Your task to perform on an android device: Clear all items from cart on bestbuy.com. Image 0: 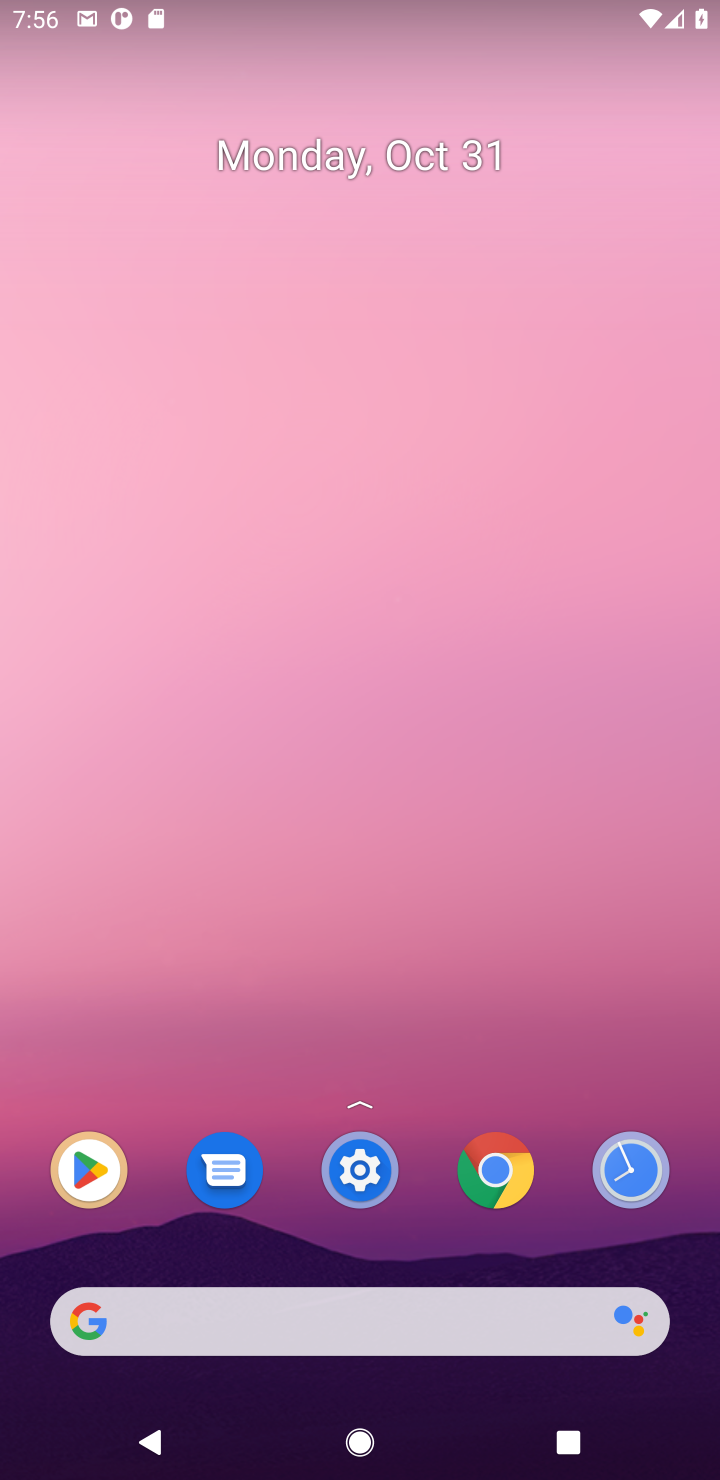
Step 0: click (502, 1185)
Your task to perform on an android device: Clear all items from cart on bestbuy.com. Image 1: 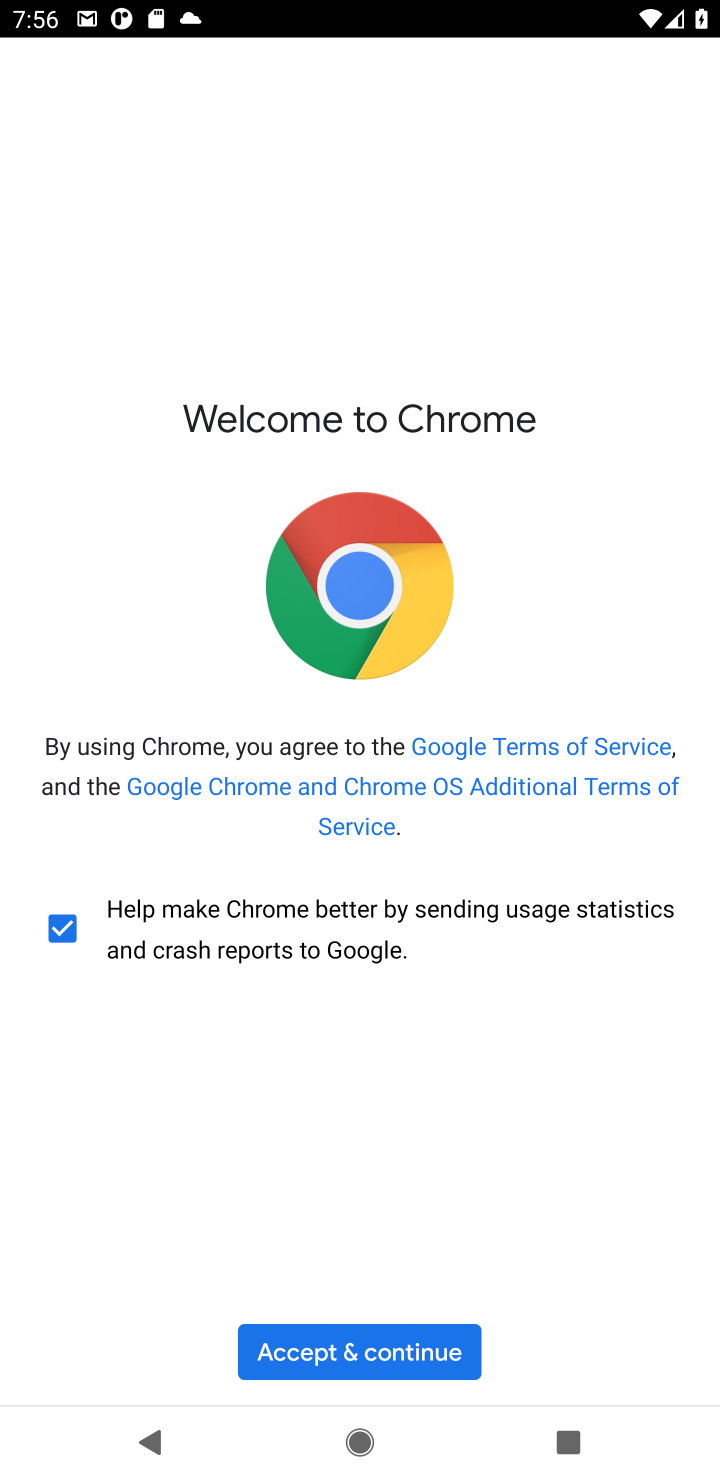
Step 1: click (345, 1355)
Your task to perform on an android device: Clear all items from cart on bestbuy.com. Image 2: 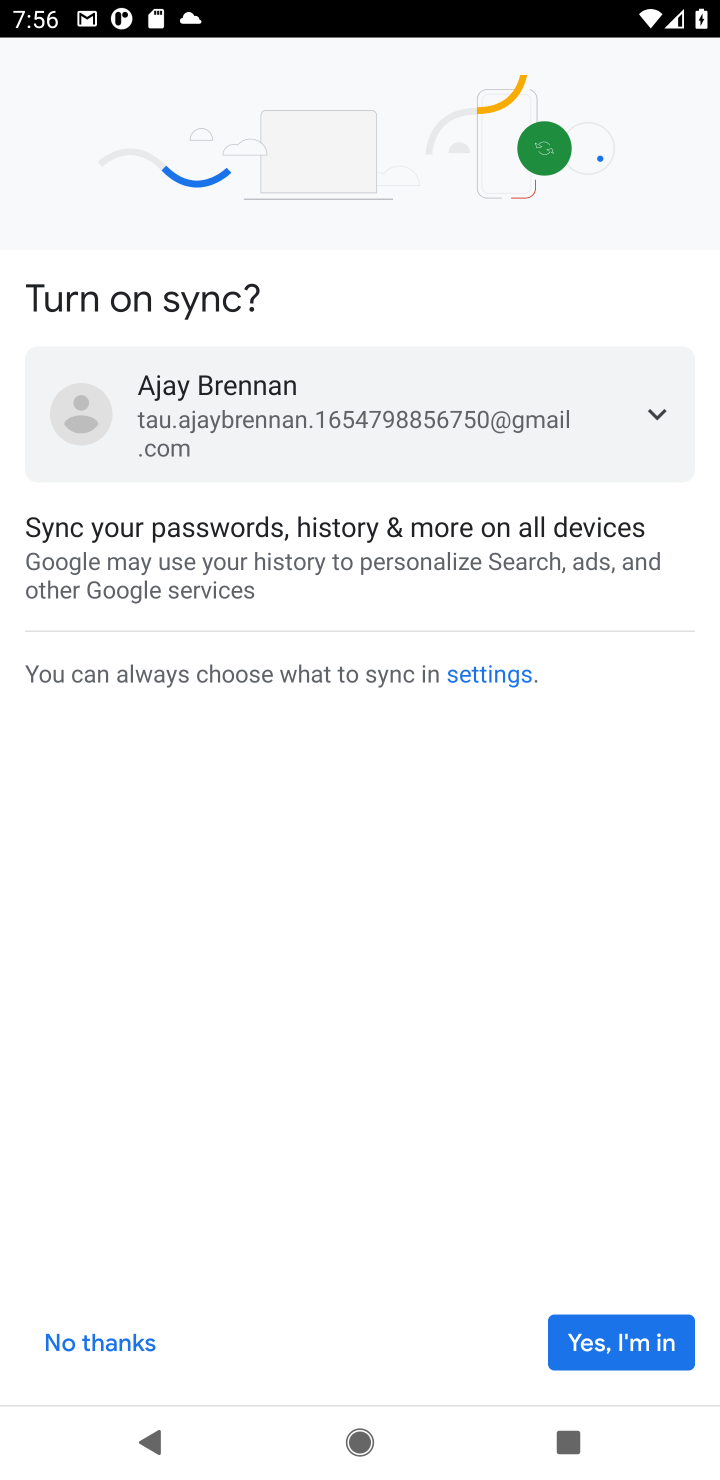
Step 2: click (667, 1347)
Your task to perform on an android device: Clear all items from cart on bestbuy.com. Image 3: 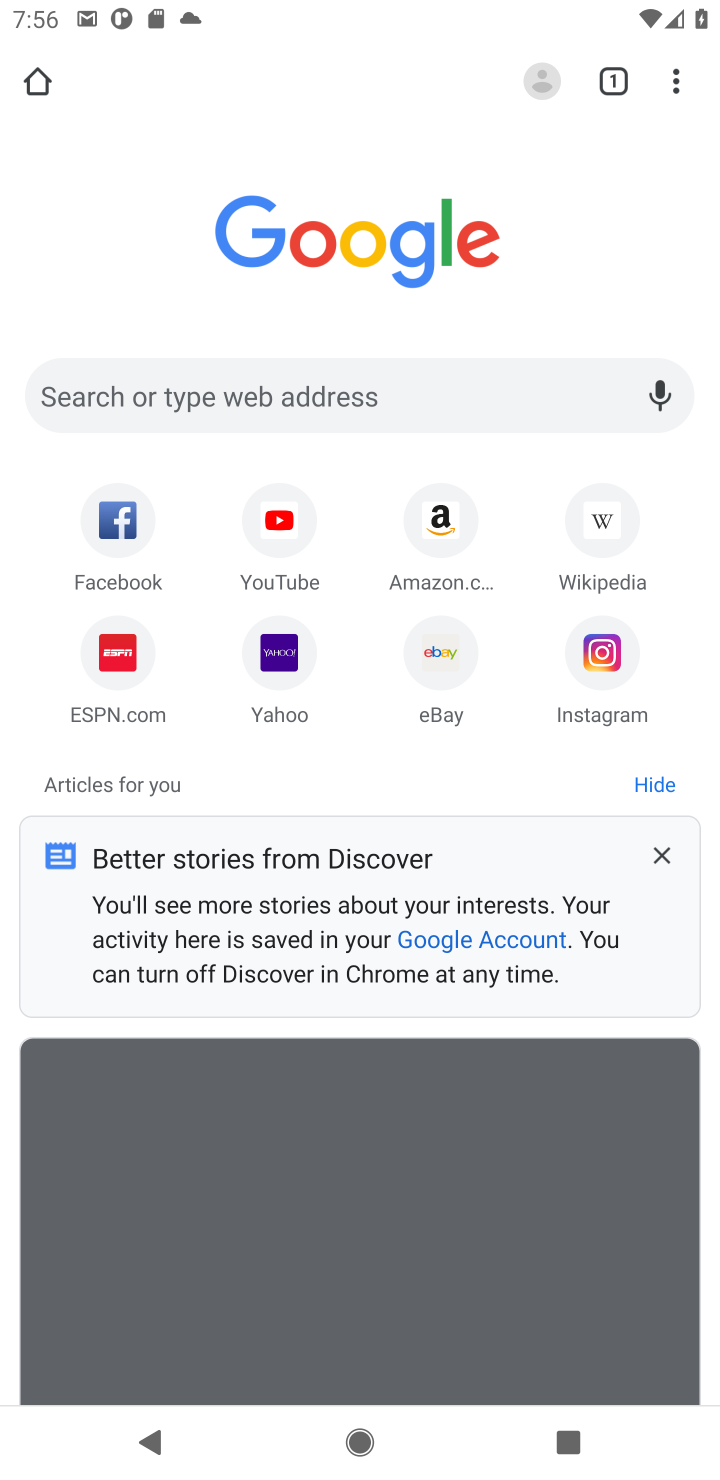
Step 3: click (356, 382)
Your task to perform on an android device: Clear all items from cart on bestbuy.com. Image 4: 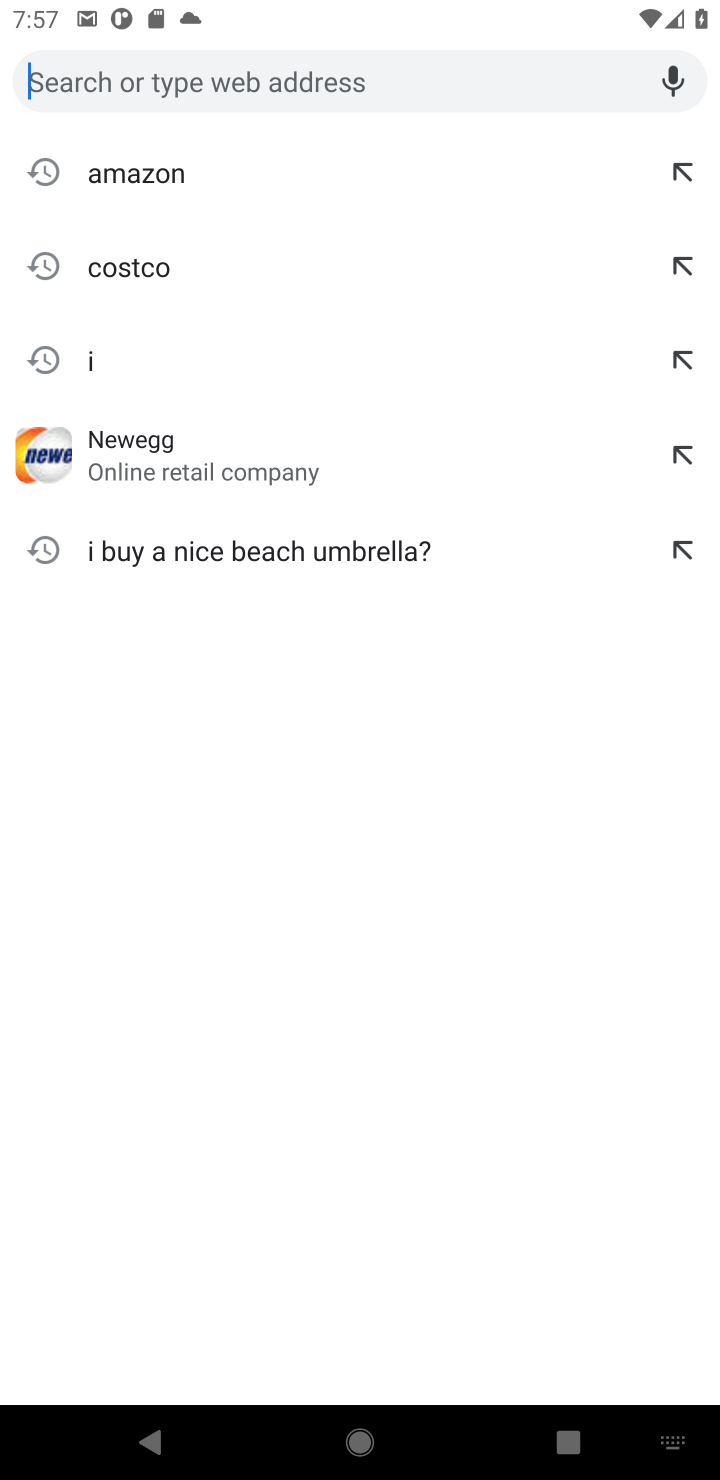
Step 4: type "bestbuy"
Your task to perform on an android device: Clear all items from cart on bestbuy.com. Image 5: 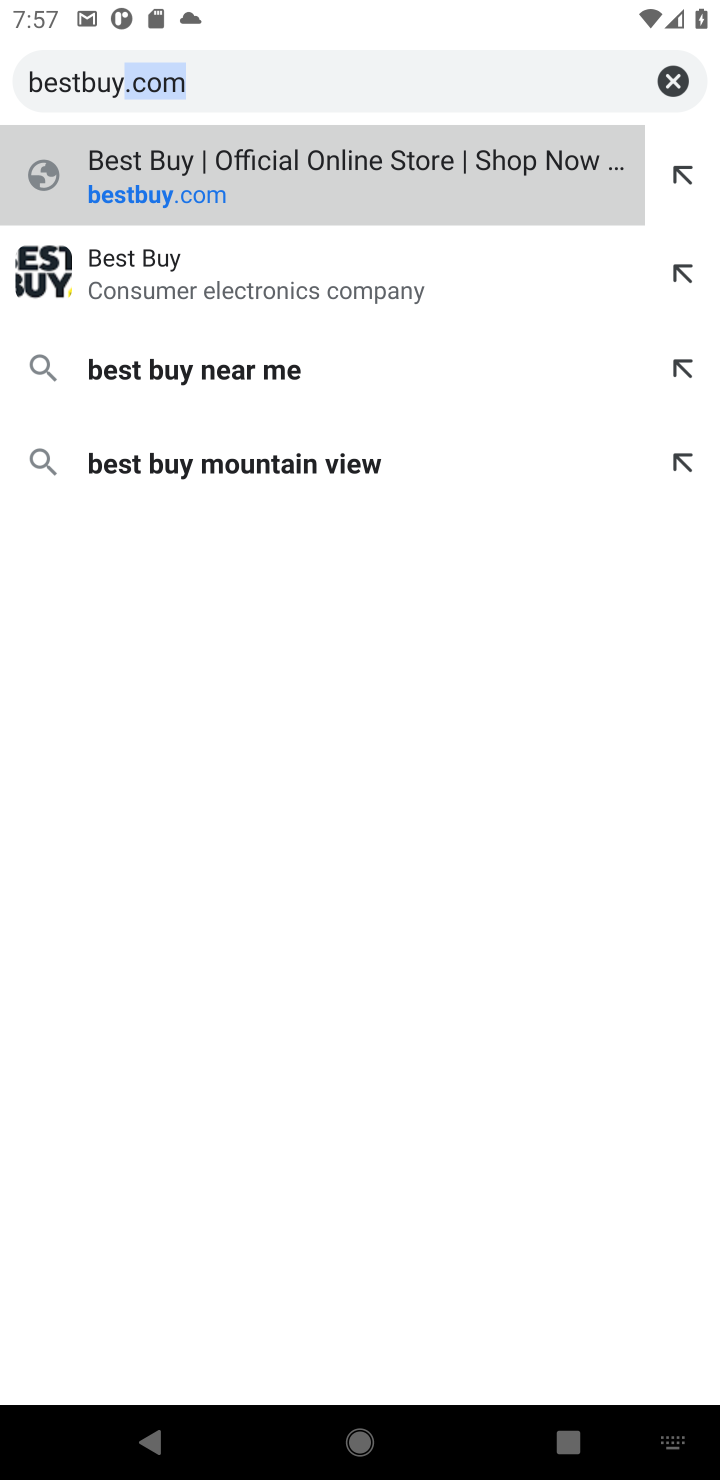
Step 5: click (192, 166)
Your task to perform on an android device: Clear all items from cart on bestbuy.com. Image 6: 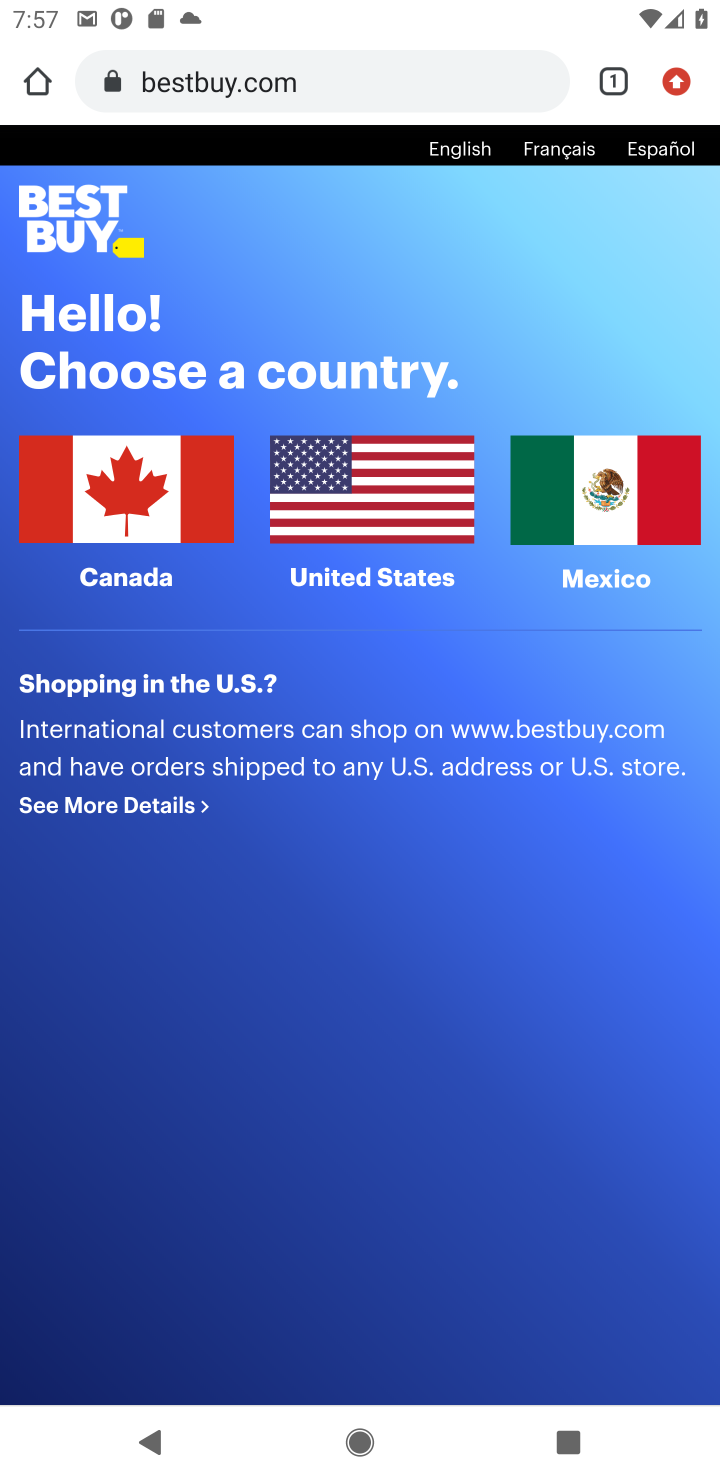
Step 6: click (360, 479)
Your task to perform on an android device: Clear all items from cart on bestbuy.com. Image 7: 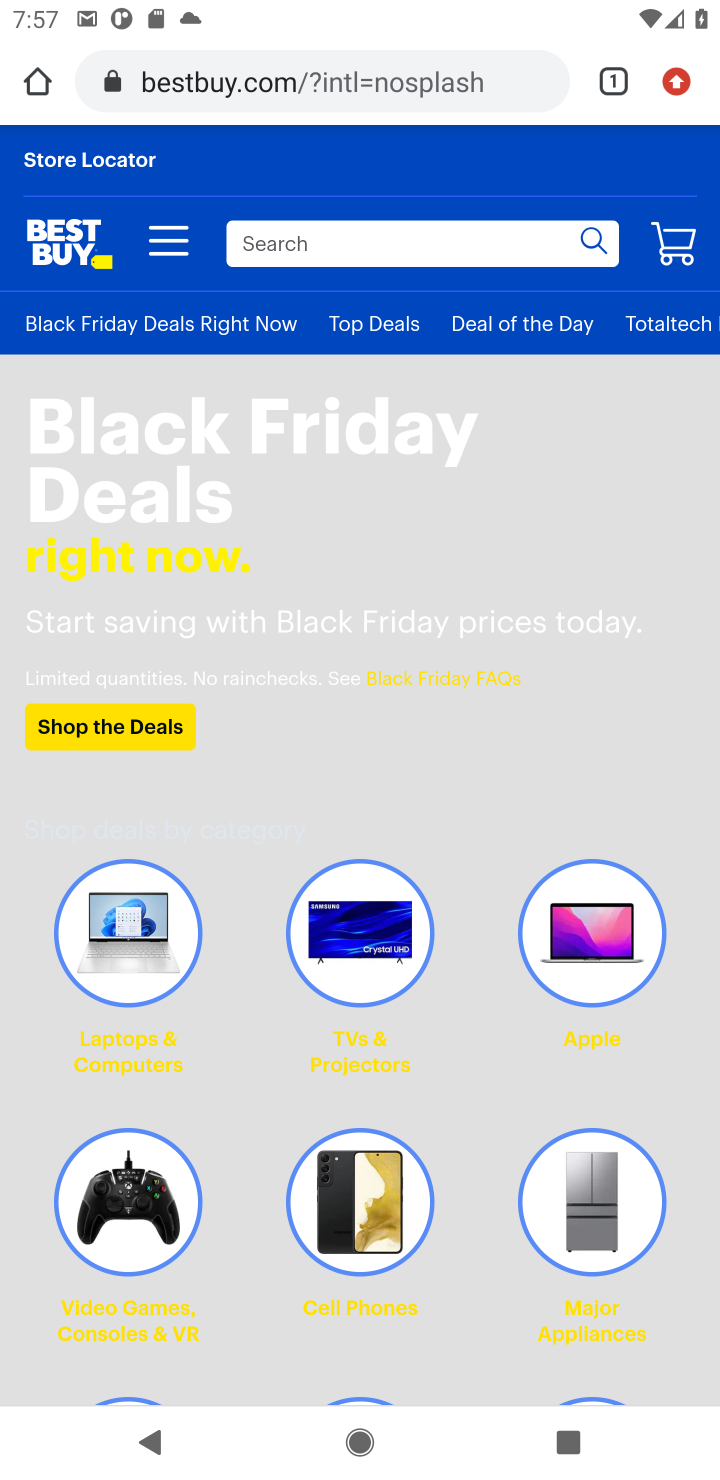
Step 7: click (674, 237)
Your task to perform on an android device: Clear all items from cart on bestbuy.com. Image 8: 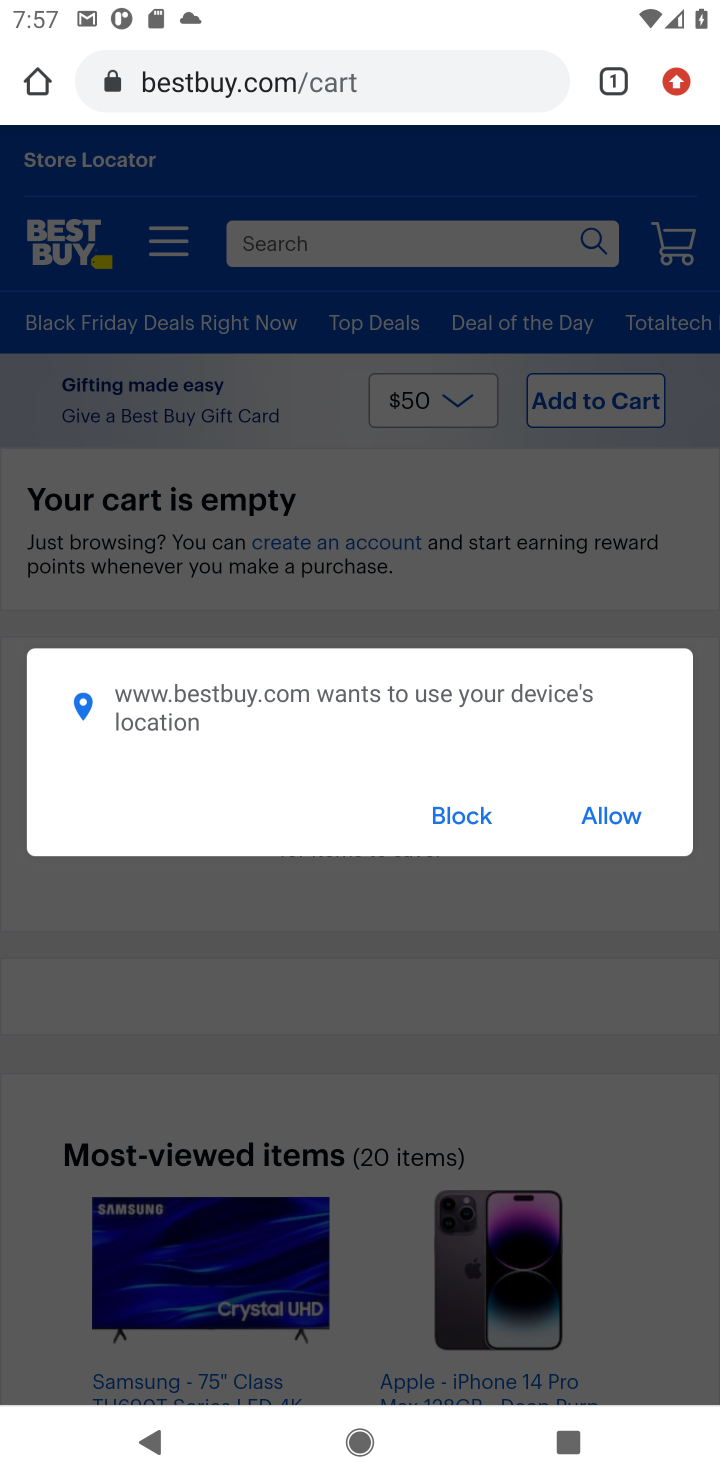
Step 8: task complete